Your task to perform on an android device: Check the weather Image 0: 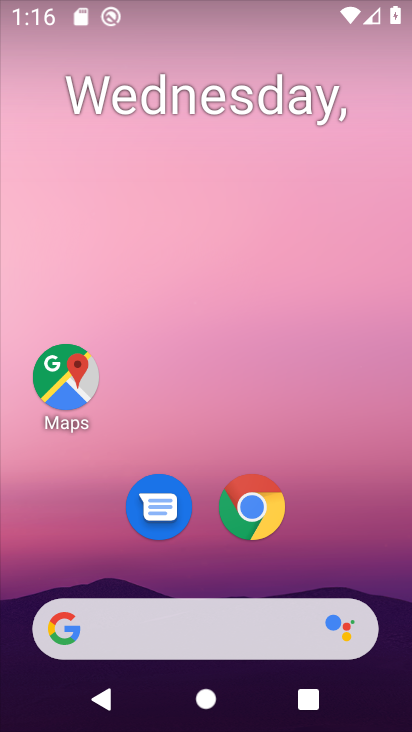
Step 0: click (158, 183)
Your task to perform on an android device: Check the weather Image 1: 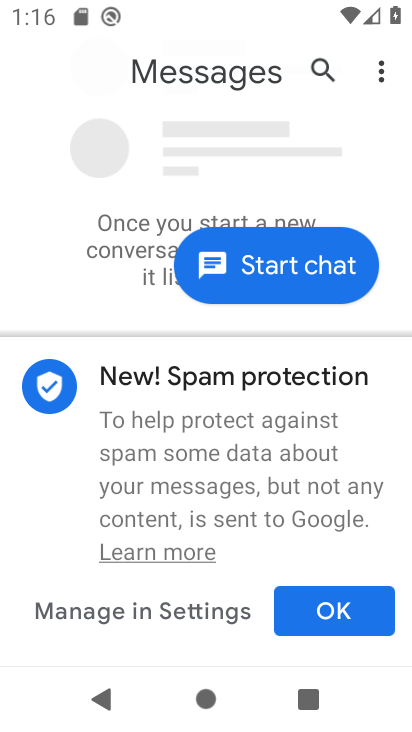
Step 1: press home button
Your task to perform on an android device: Check the weather Image 2: 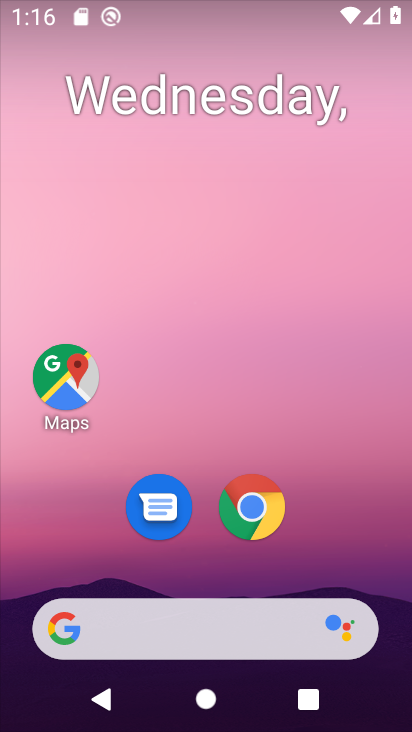
Step 2: click (199, 622)
Your task to perform on an android device: Check the weather Image 3: 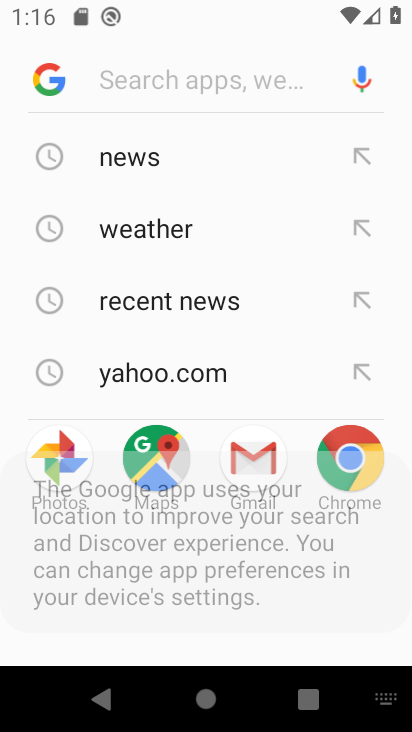
Step 3: click (199, 240)
Your task to perform on an android device: Check the weather Image 4: 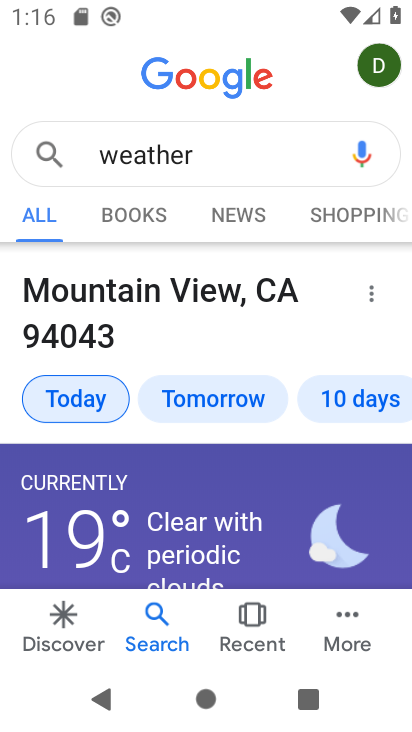
Step 4: task complete